Your task to perform on an android device: star an email in the gmail app Image 0: 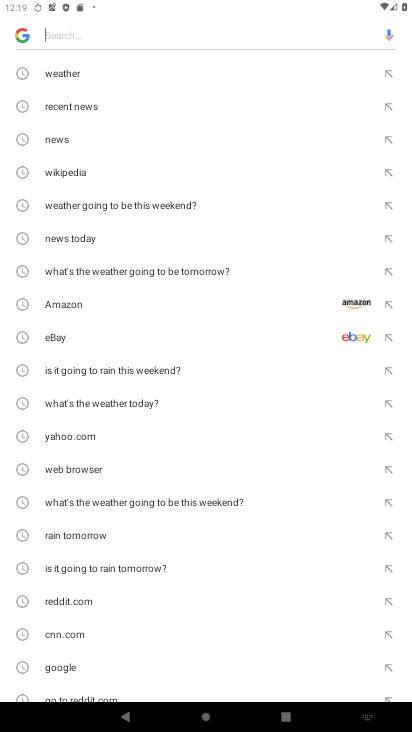
Step 0: press home button
Your task to perform on an android device: star an email in the gmail app Image 1: 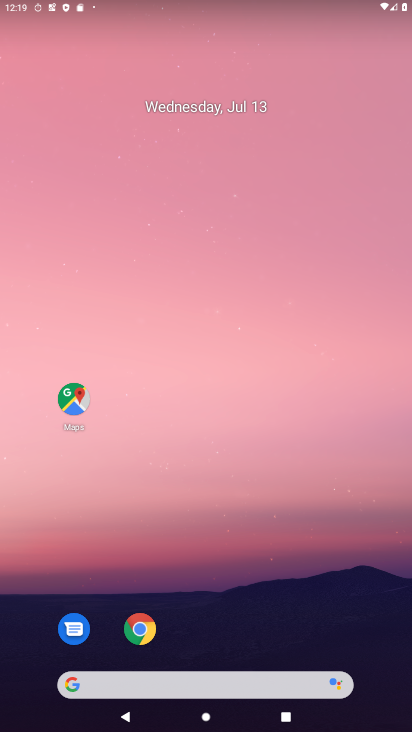
Step 1: drag from (197, 622) to (208, 221)
Your task to perform on an android device: star an email in the gmail app Image 2: 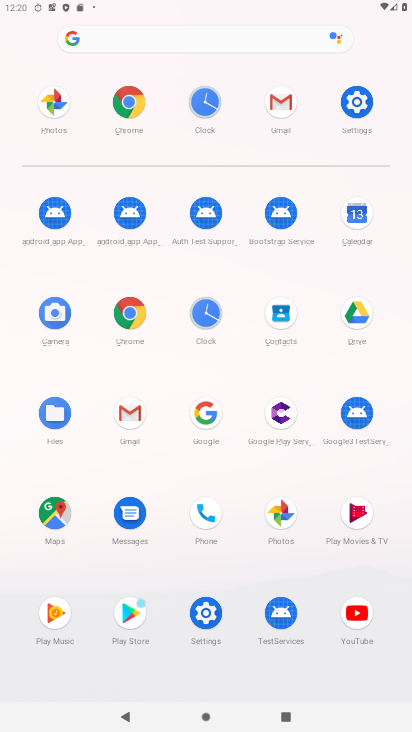
Step 2: click (289, 104)
Your task to perform on an android device: star an email in the gmail app Image 3: 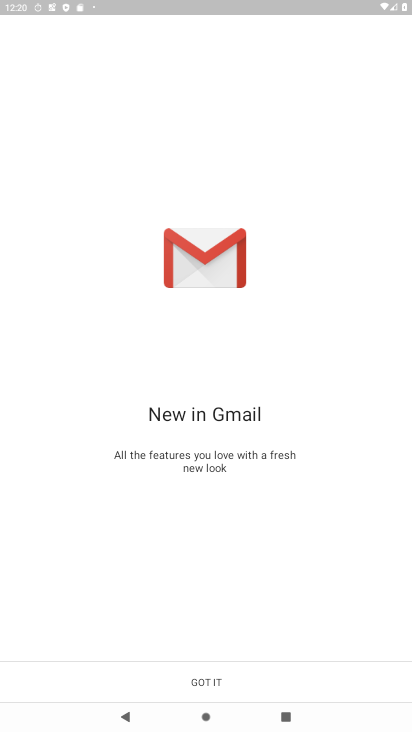
Step 3: click (286, 670)
Your task to perform on an android device: star an email in the gmail app Image 4: 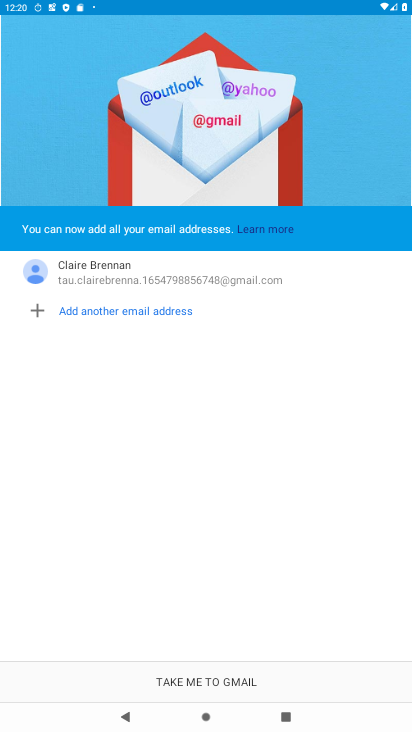
Step 4: click (252, 689)
Your task to perform on an android device: star an email in the gmail app Image 5: 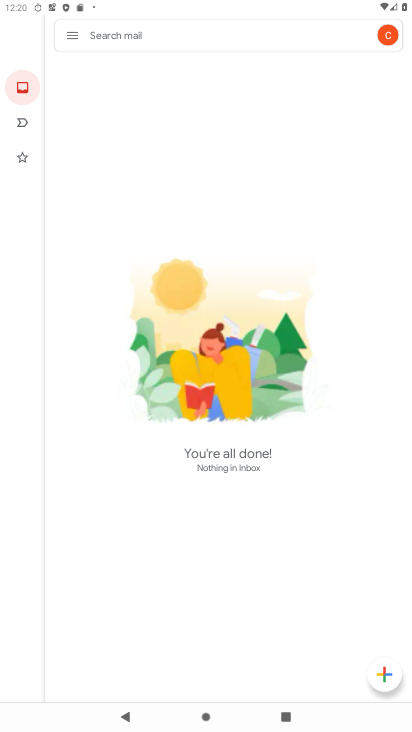
Step 5: task complete